Your task to perform on an android device: turn off location history Image 0: 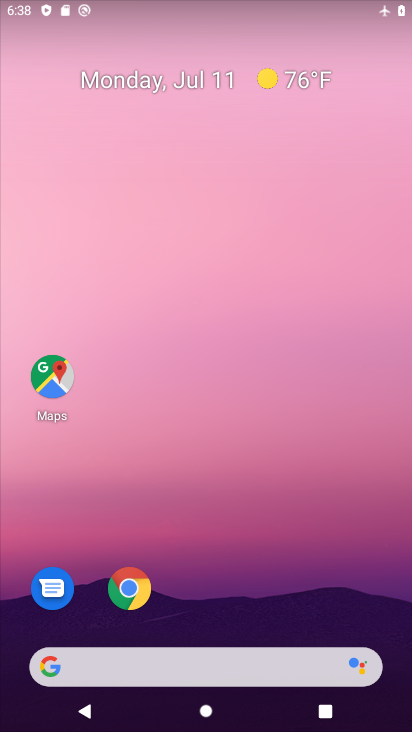
Step 0: drag from (255, 553) to (209, 49)
Your task to perform on an android device: turn off location history Image 1: 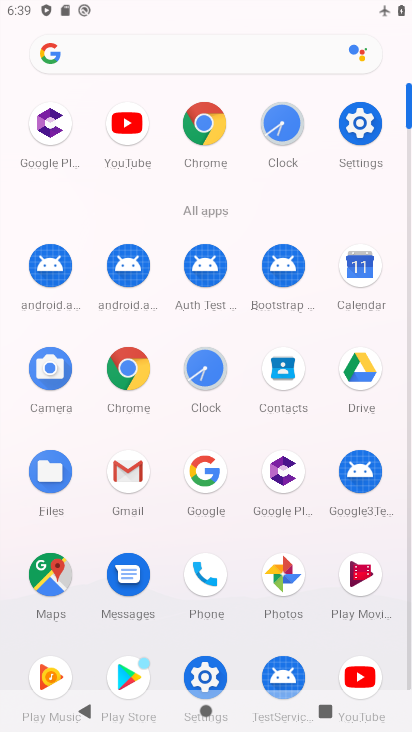
Step 1: click (36, 580)
Your task to perform on an android device: turn off location history Image 2: 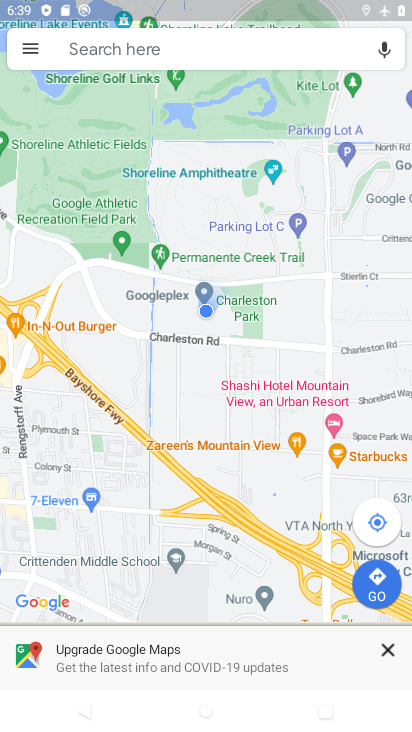
Step 2: click (27, 45)
Your task to perform on an android device: turn off location history Image 3: 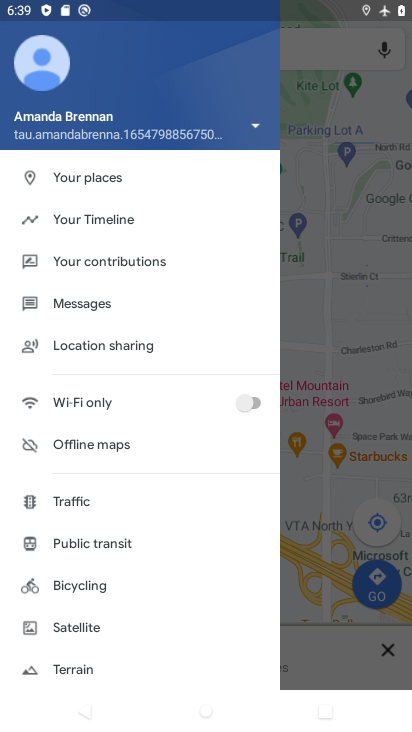
Step 3: click (92, 218)
Your task to perform on an android device: turn off location history Image 4: 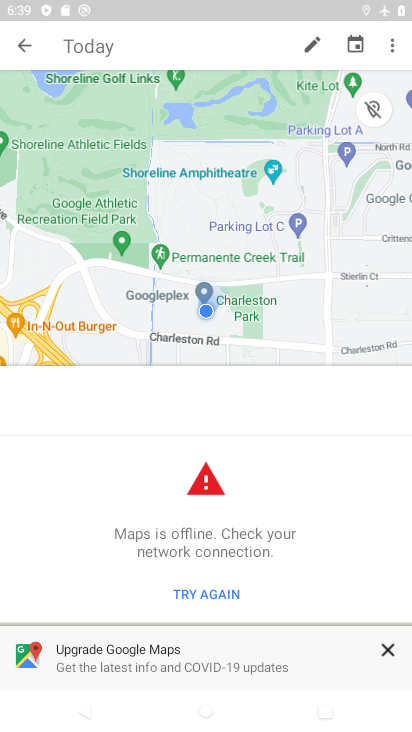
Step 4: click (393, 49)
Your task to perform on an android device: turn off location history Image 5: 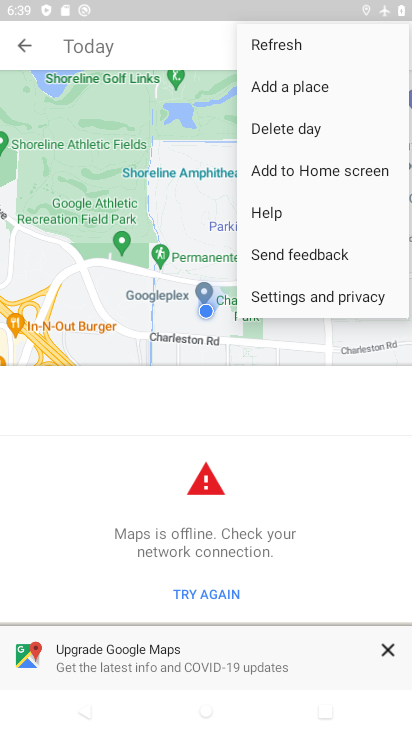
Step 5: click (322, 291)
Your task to perform on an android device: turn off location history Image 6: 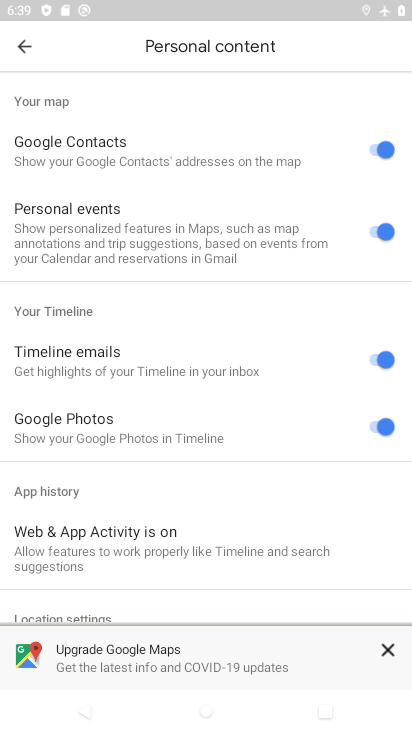
Step 6: drag from (231, 564) to (203, 180)
Your task to perform on an android device: turn off location history Image 7: 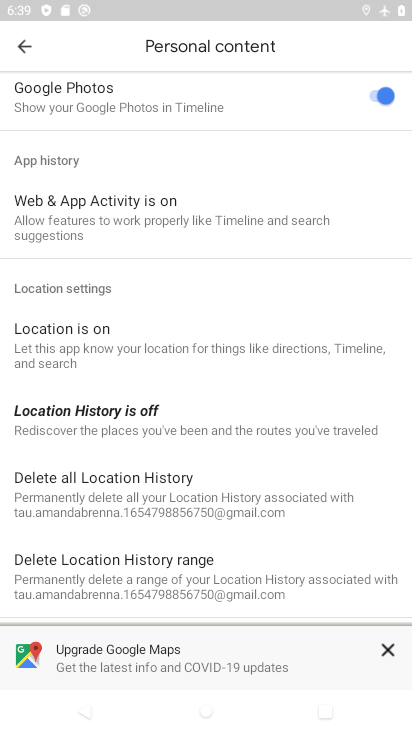
Step 7: click (92, 409)
Your task to perform on an android device: turn off location history Image 8: 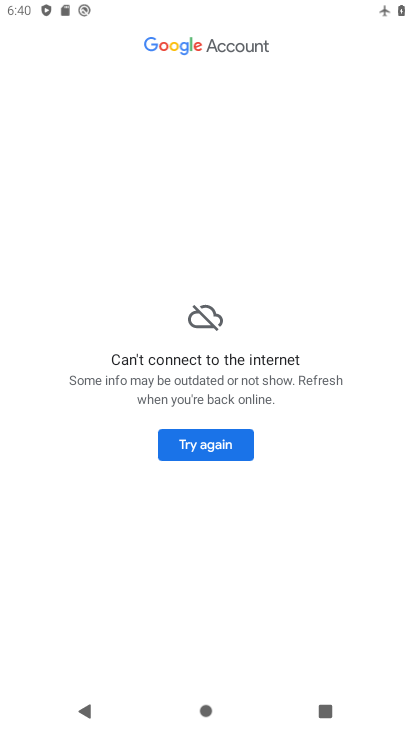
Step 8: task complete